Your task to perform on an android device: Search for "usb-c to usb-b" on bestbuy.com, select the first entry, and add it to the cart. Image 0: 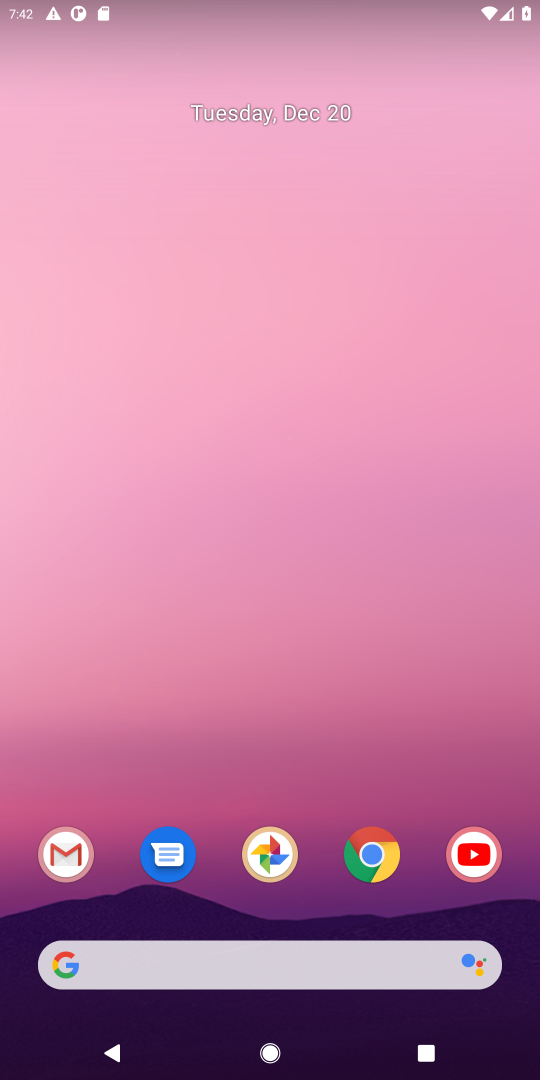
Step 0: click (365, 854)
Your task to perform on an android device: Search for "usb-c to usb-b" on bestbuy.com, select the first entry, and add it to the cart. Image 1: 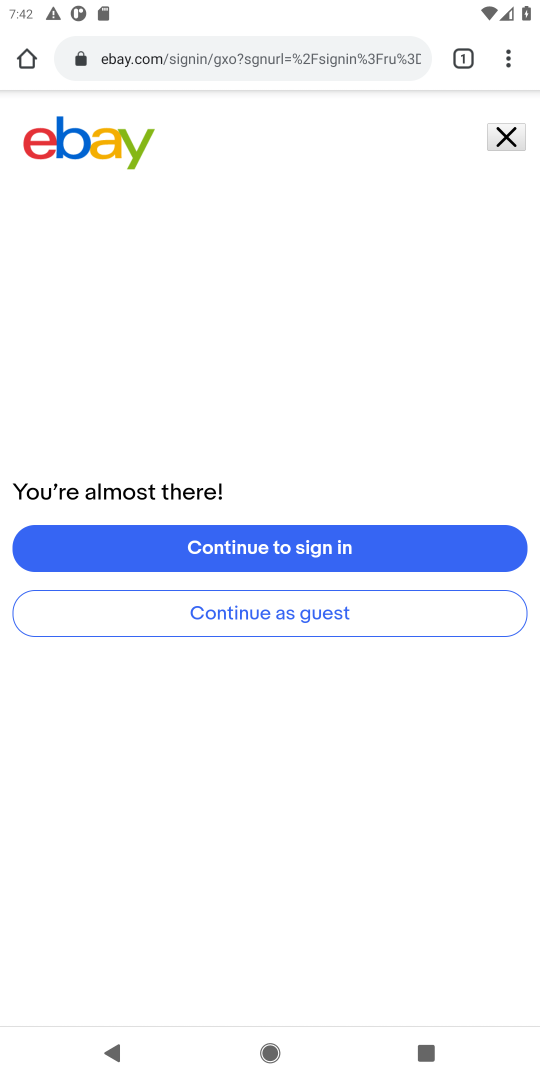
Step 1: click (154, 61)
Your task to perform on an android device: Search for "usb-c to usb-b" on bestbuy.com, select the first entry, and add it to the cart. Image 2: 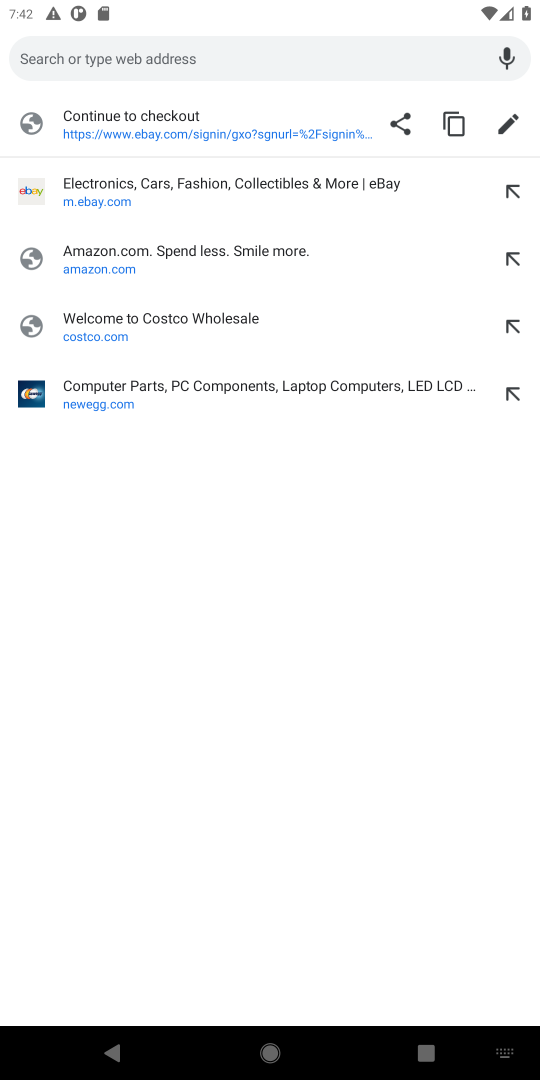
Step 2: type "bestbuy.com"
Your task to perform on an android device: Search for "usb-c to usb-b" on bestbuy.com, select the first entry, and add it to the cart. Image 3: 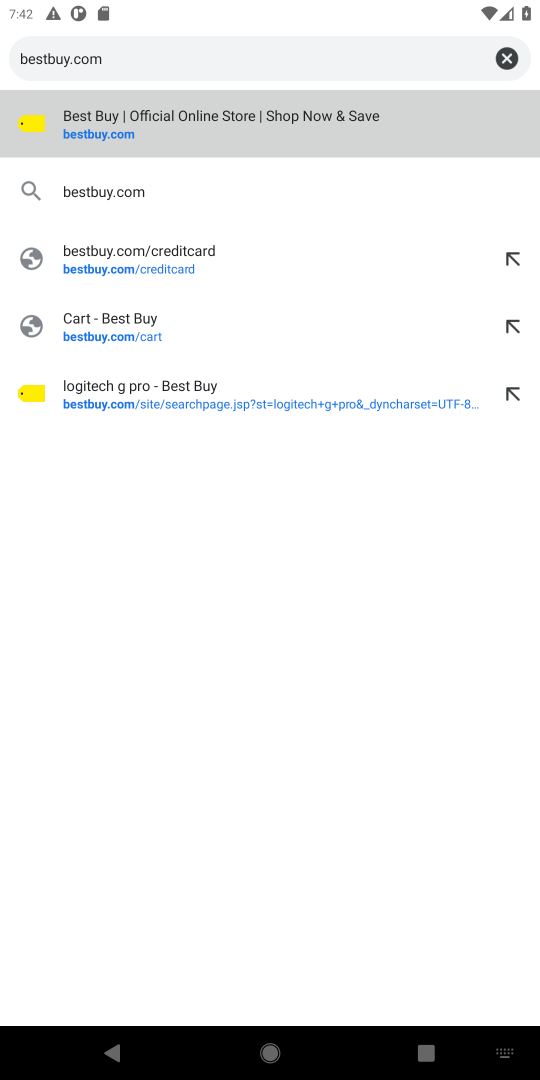
Step 3: click (93, 125)
Your task to perform on an android device: Search for "usb-c to usb-b" on bestbuy.com, select the first entry, and add it to the cart. Image 4: 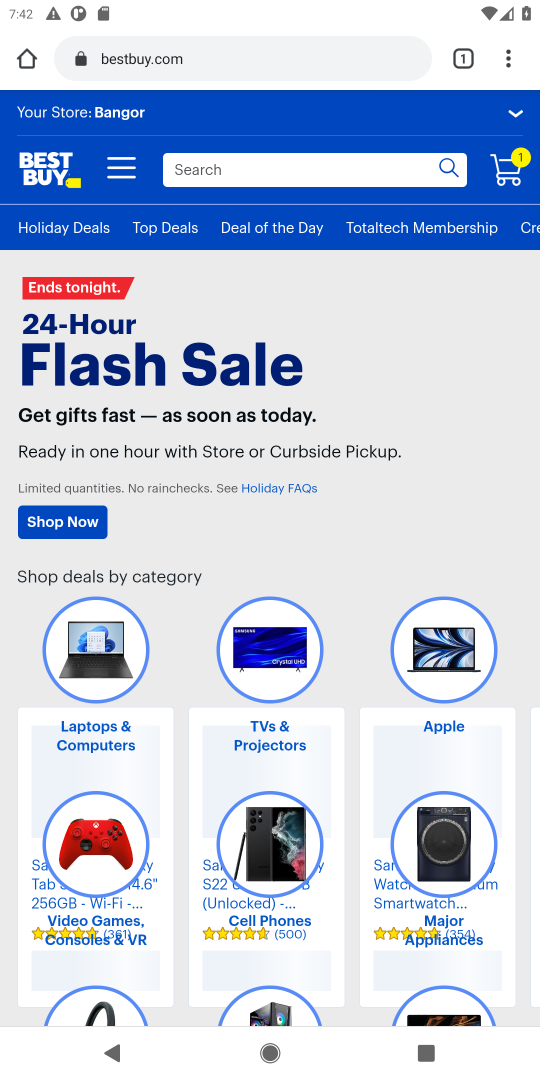
Step 4: click (188, 166)
Your task to perform on an android device: Search for "usb-c to usb-b" on bestbuy.com, select the first entry, and add it to the cart. Image 5: 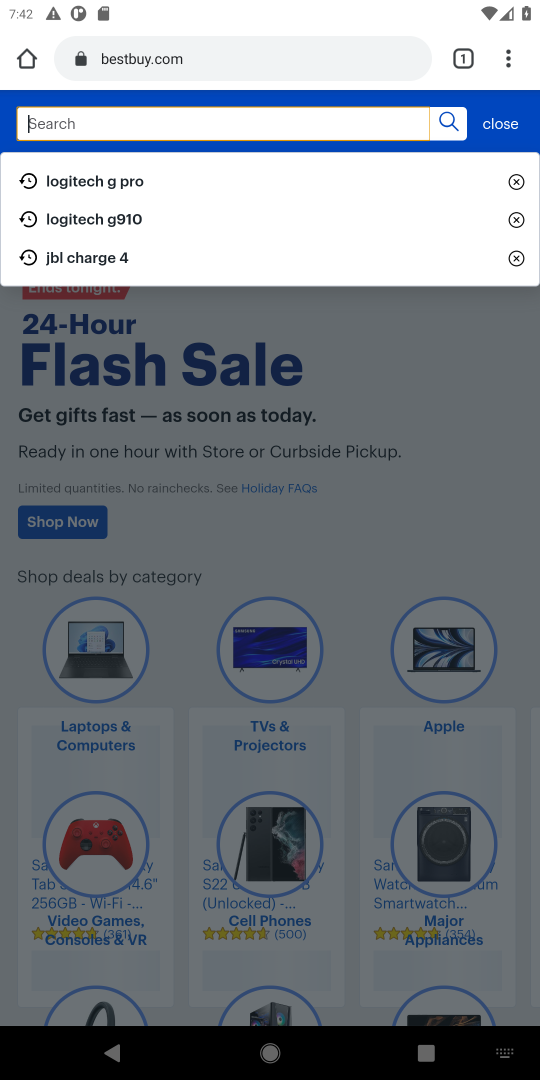
Step 5: type "usb-c to usb-b"
Your task to perform on an android device: Search for "usb-c to usb-b" on bestbuy.com, select the first entry, and add it to the cart. Image 6: 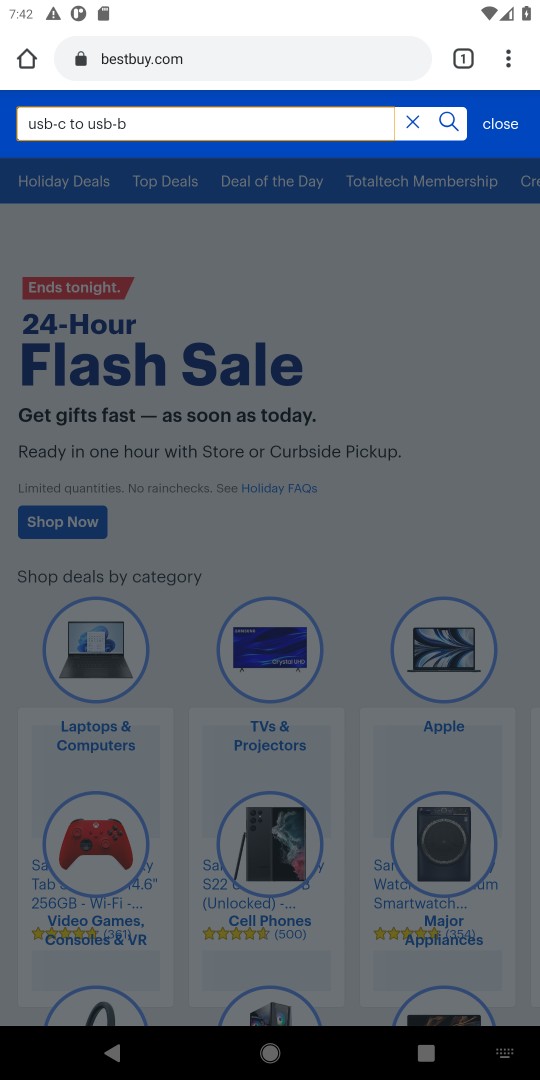
Step 6: click (448, 120)
Your task to perform on an android device: Search for "usb-c to usb-b" on bestbuy.com, select the first entry, and add it to the cart. Image 7: 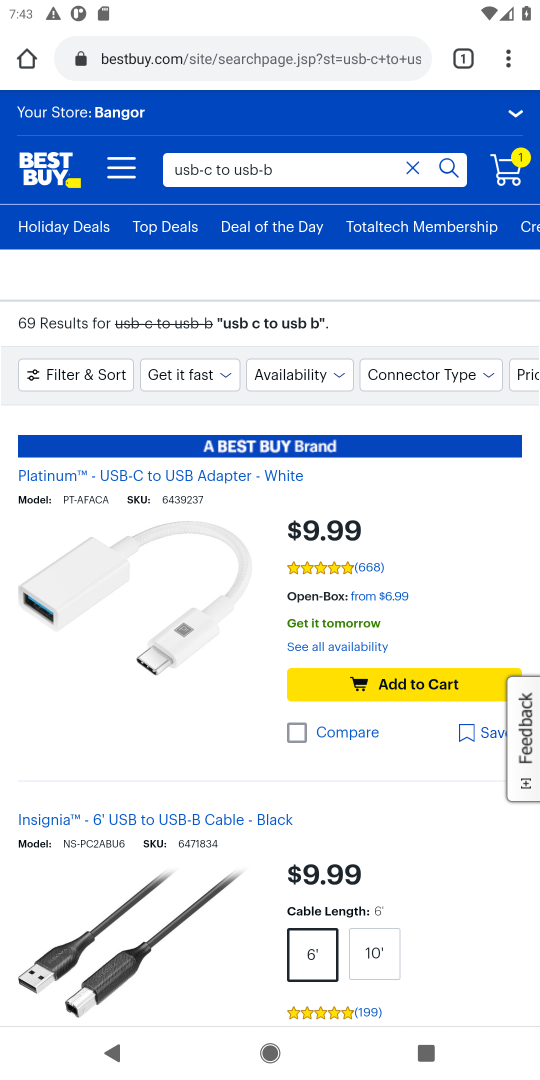
Step 7: task complete